Your task to perform on an android device: Show me productivity apps on the Play Store Image 0: 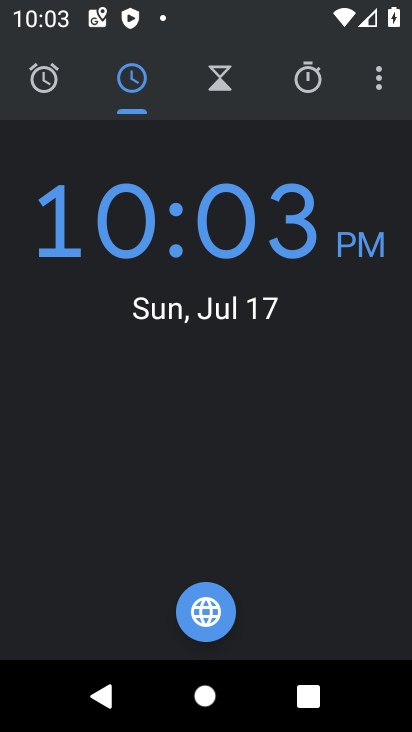
Step 0: press back button
Your task to perform on an android device: Show me productivity apps on the Play Store Image 1: 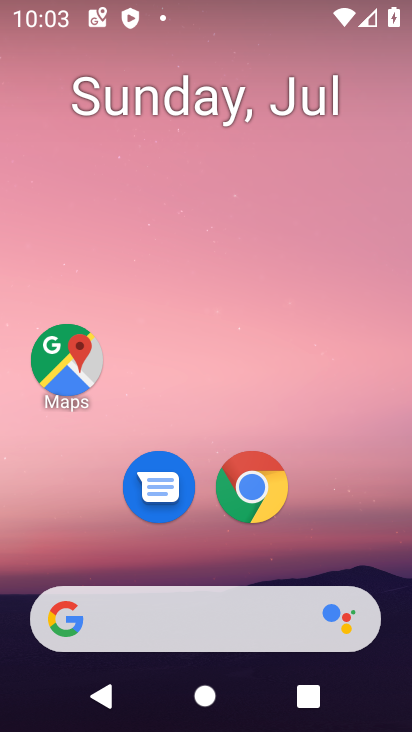
Step 1: drag from (197, 526) to (237, 2)
Your task to perform on an android device: Show me productivity apps on the Play Store Image 2: 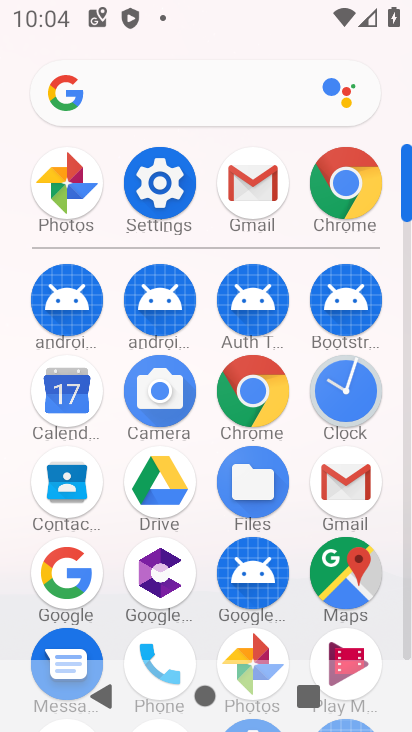
Step 2: drag from (169, 625) to (269, 134)
Your task to perform on an android device: Show me productivity apps on the Play Store Image 3: 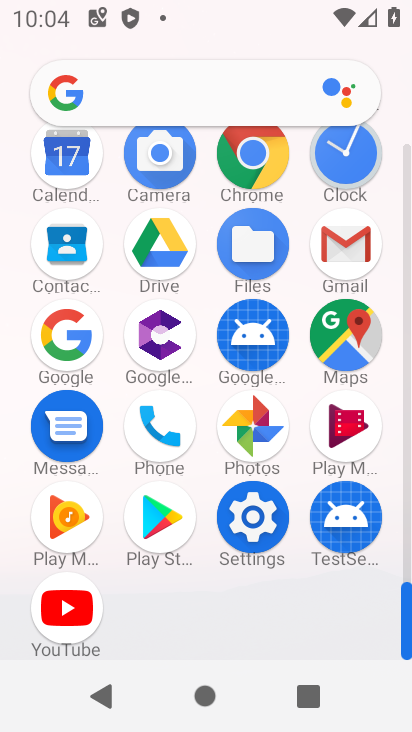
Step 3: click (159, 507)
Your task to perform on an android device: Show me productivity apps on the Play Store Image 4: 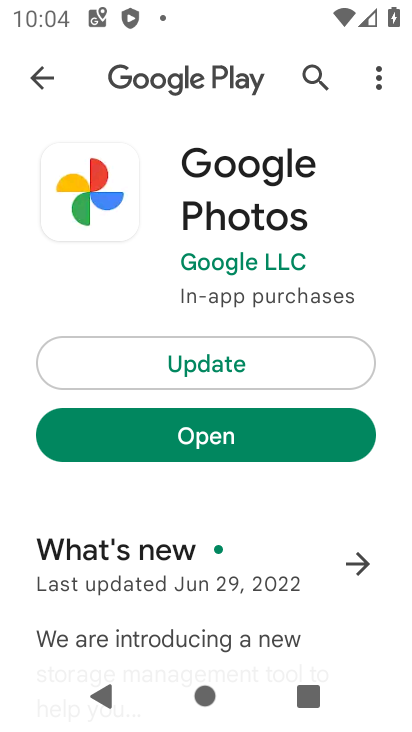
Step 4: click (41, 63)
Your task to perform on an android device: Show me productivity apps on the Play Store Image 5: 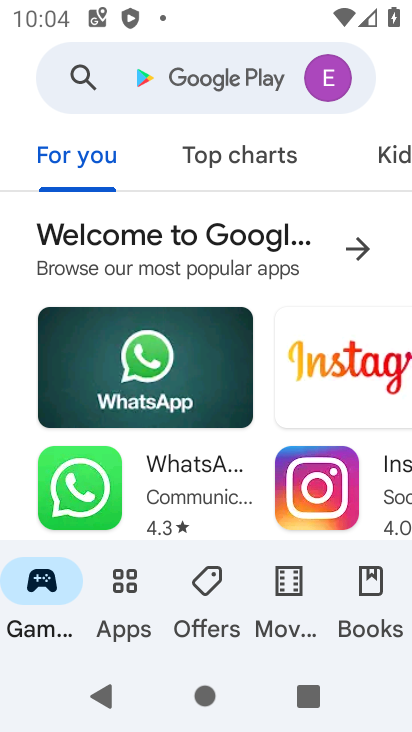
Step 5: click (112, 612)
Your task to perform on an android device: Show me productivity apps on the Play Store Image 6: 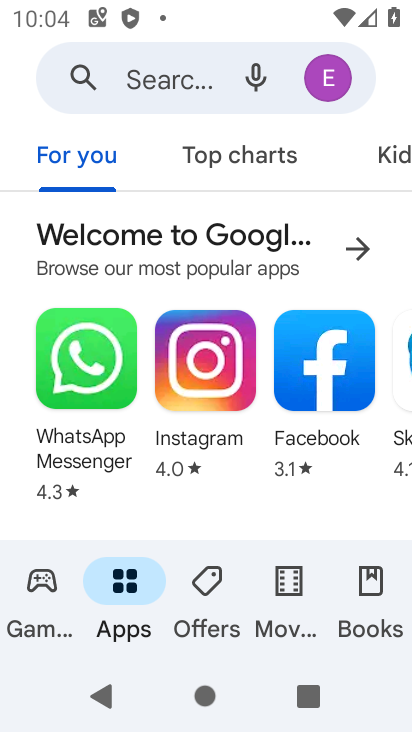
Step 6: drag from (279, 496) to (290, 32)
Your task to perform on an android device: Show me productivity apps on the Play Store Image 7: 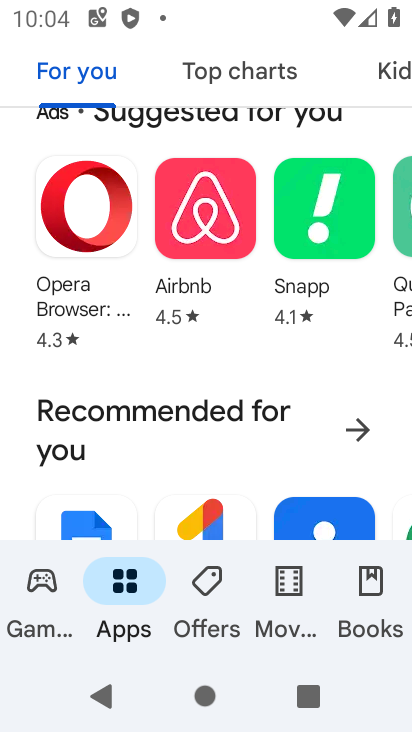
Step 7: drag from (156, 496) to (255, 47)
Your task to perform on an android device: Show me productivity apps on the Play Store Image 8: 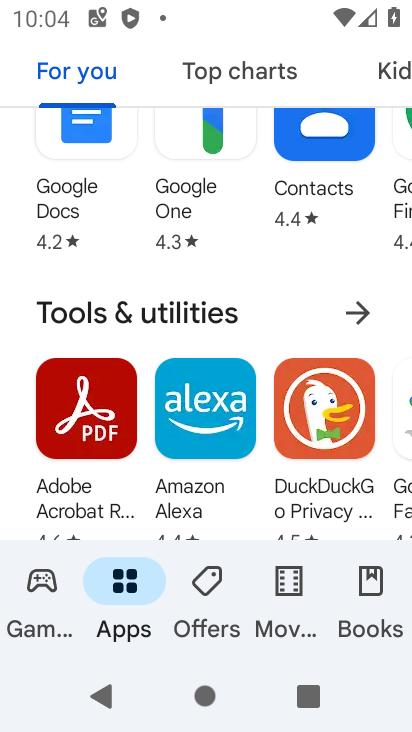
Step 8: drag from (193, 499) to (268, 99)
Your task to perform on an android device: Show me productivity apps on the Play Store Image 9: 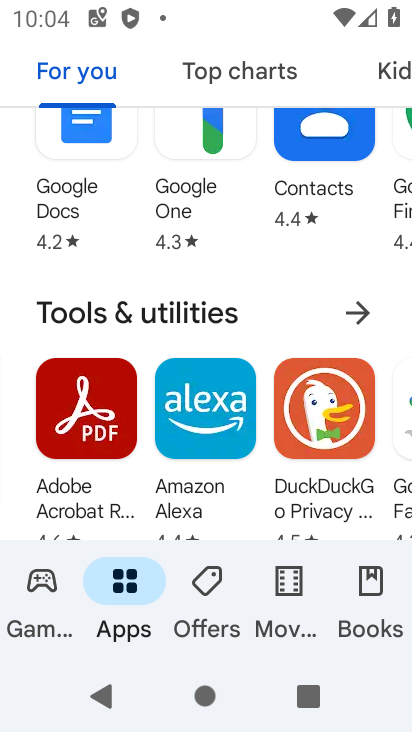
Step 9: drag from (197, 523) to (308, 71)
Your task to perform on an android device: Show me productivity apps on the Play Store Image 10: 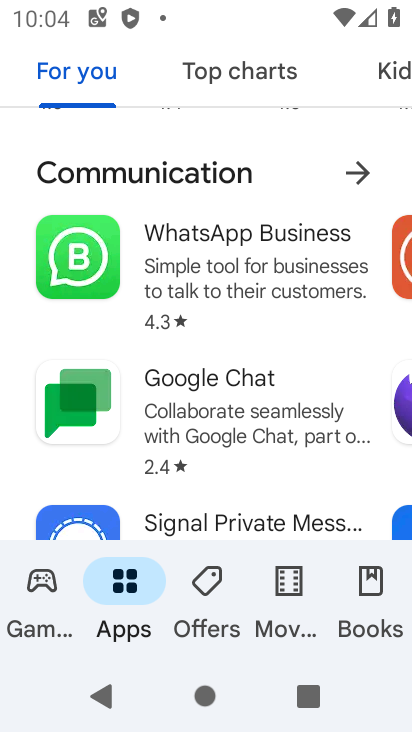
Step 10: drag from (224, 483) to (305, 13)
Your task to perform on an android device: Show me productivity apps on the Play Store Image 11: 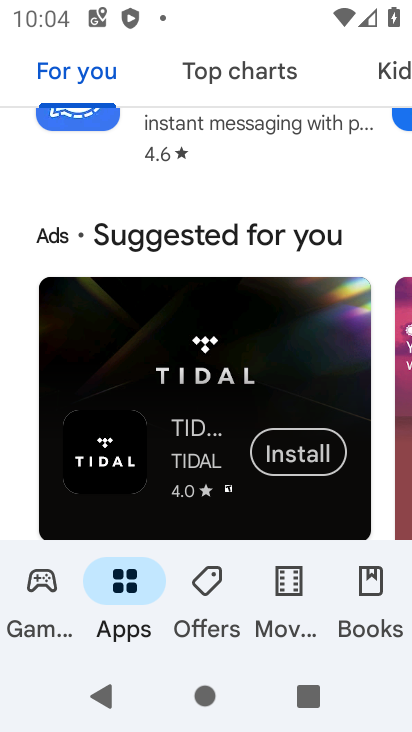
Step 11: drag from (200, 484) to (318, 7)
Your task to perform on an android device: Show me productivity apps on the Play Store Image 12: 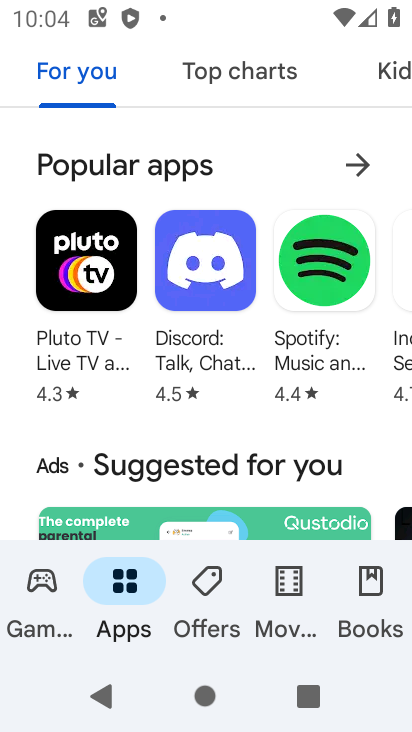
Step 12: drag from (226, 495) to (315, 77)
Your task to perform on an android device: Show me productivity apps on the Play Store Image 13: 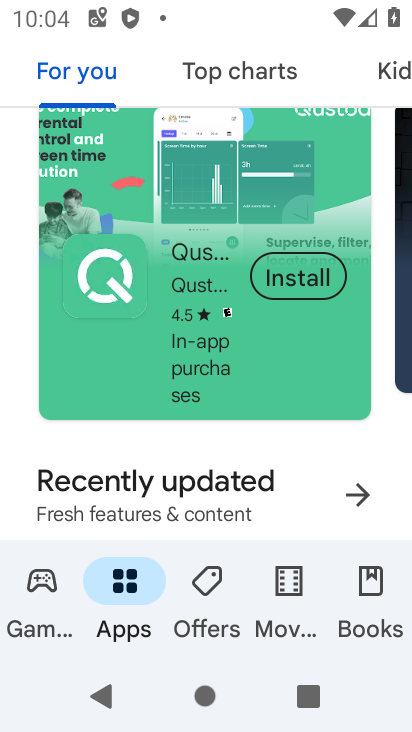
Step 13: drag from (220, 500) to (310, 1)
Your task to perform on an android device: Show me productivity apps on the Play Store Image 14: 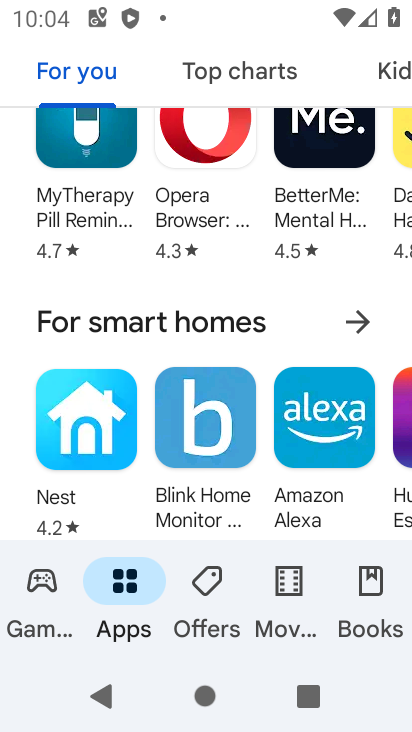
Step 14: drag from (227, 491) to (310, 62)
Your task to perform on an android device: Show me productivity apps on the Play Store Image 15: 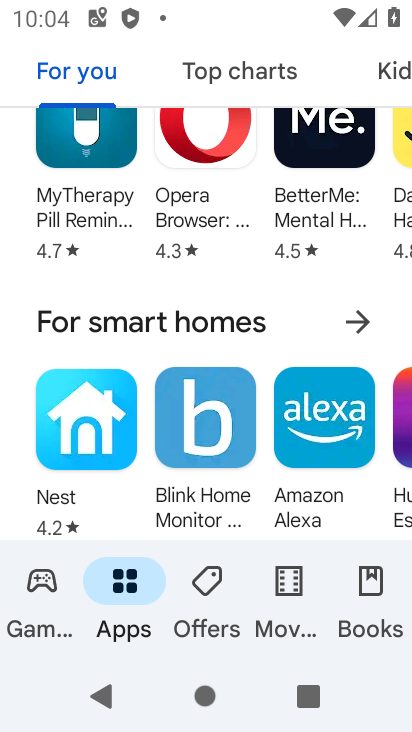
Step 15: drag from (163, 483) to (260, 105)
Your task to perform on an android device: Show me productivity apps on the Play Store Image 16: 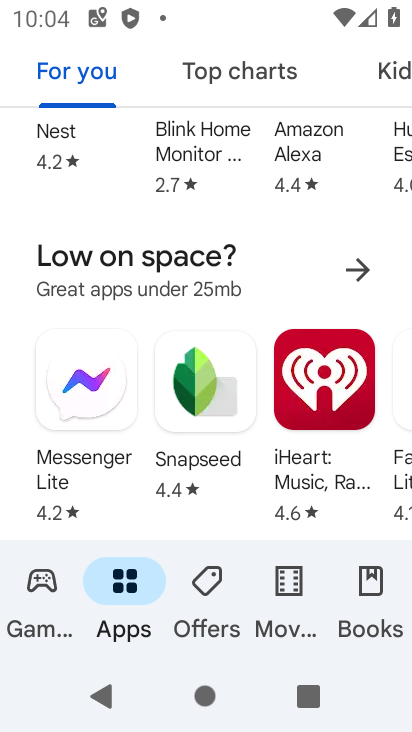
Step 16: drag from (233, 479) to (324, 44)
Your task to perform on an android device: Show me productivity apps on the Play Store Image 17: 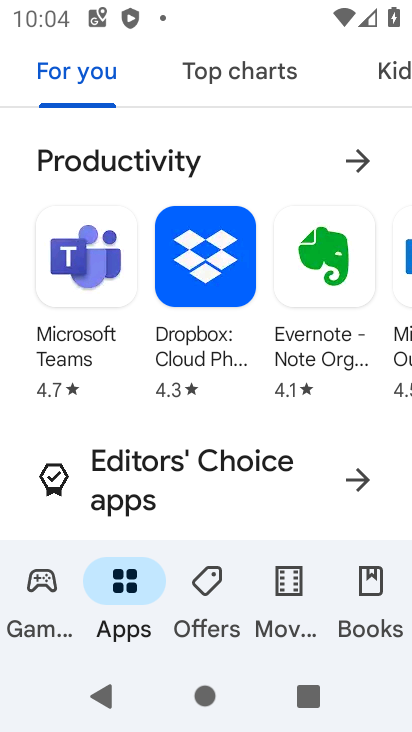
Step 17: click (364, 163)
Your task to perform on an android device: Show me productivity apps on the Play Store Image 18: 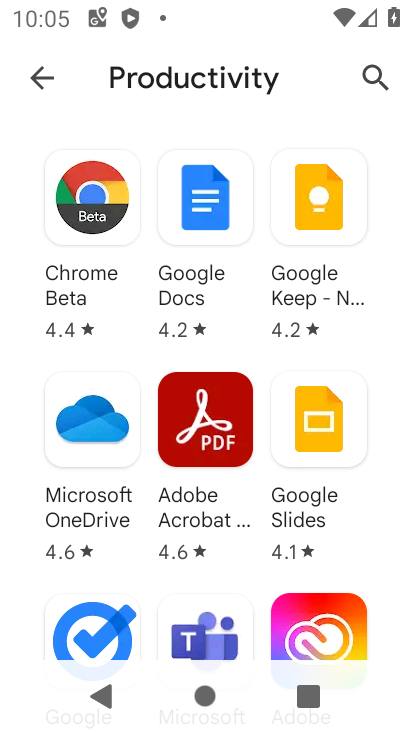
Step 18: task complete